Your task to perform on an android device: add a contact Image 0: 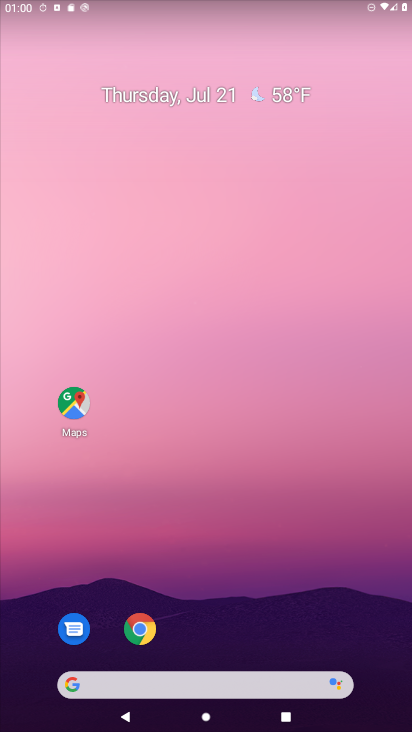
Step 0: drag from (278, 622) to (223, 126)
Your task to perform on an android device: add a contact Image 1: 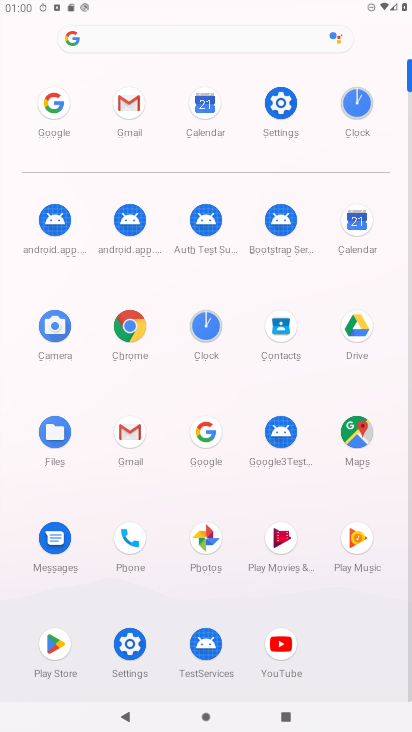
Step 1: click (280, 338)
Your task to perform on an android device: add a contact Image 2: 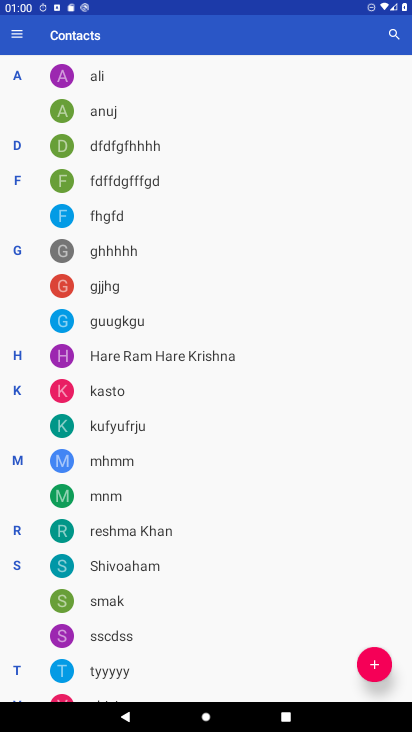
Step 2: click (379, 658)
Your task to perform on an android device: add a contact Image 3: 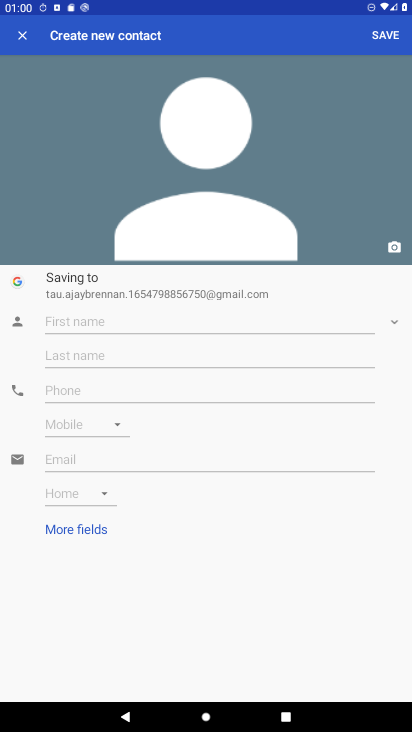
Step 3: click (165, 328)
Your task to perform on an android device: add a contact Image 4: 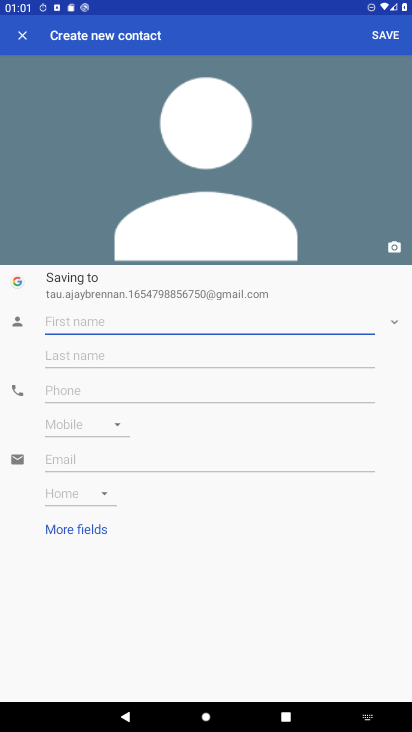
Step 4: type "hghvhj"
Your task to perform on an android device: add a contact Image 5: 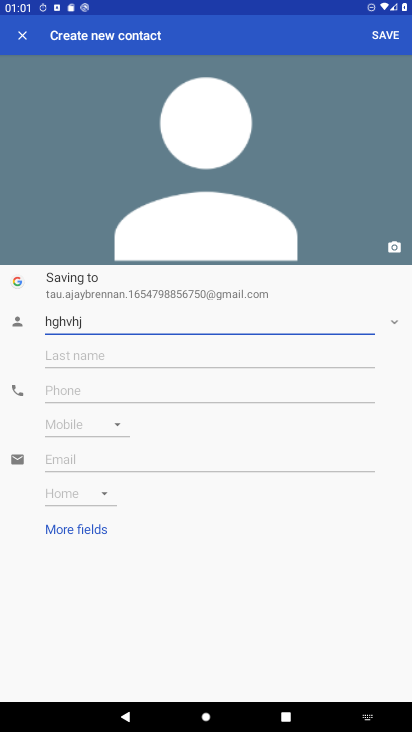
Step 5: click (168, 377)
Your task to perform on an android device: add a contact Image 6: 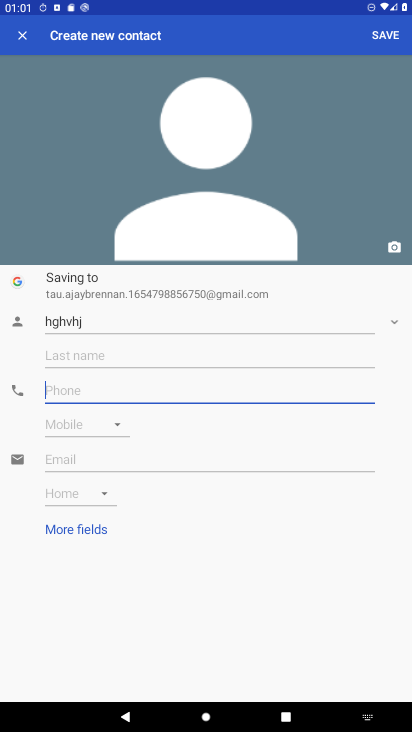
Step 6: type "75576657678"
Your task to perform on an android device: add a contact Image 7: 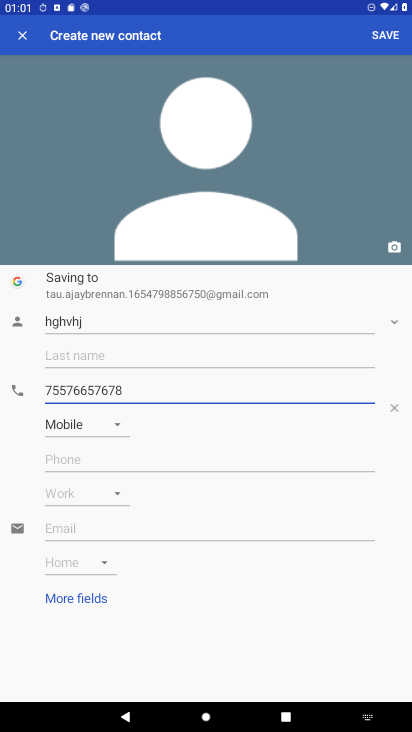
Step 7: click (380, 47)
Your task to perform on an android device: add a contact Image 8: 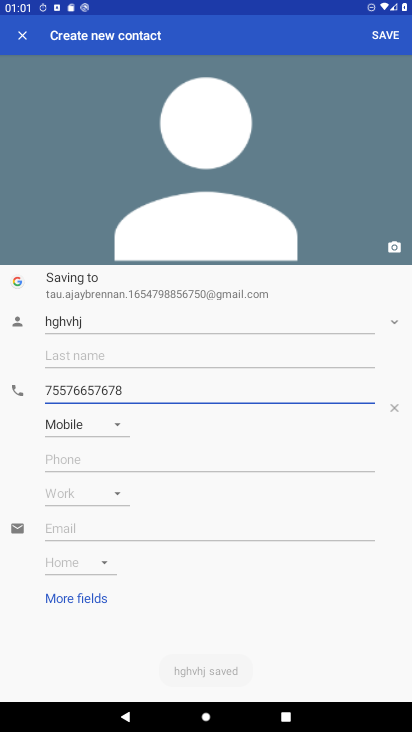
Step 8: click (383, 36)
Your task to perform on an android device: add a contact Image 9: 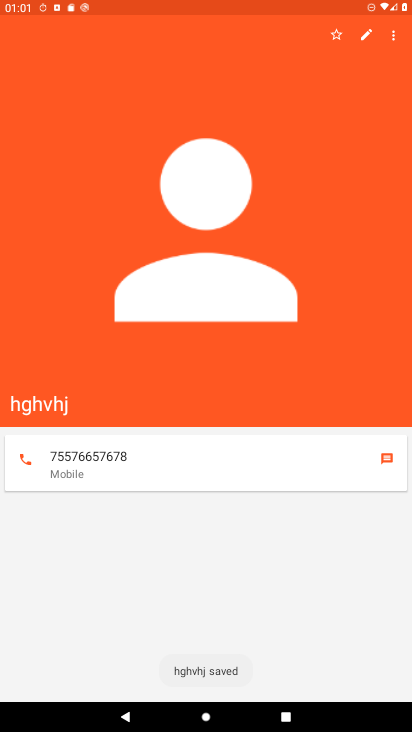
Step 9: task complete